Your task to perform on an android device: open a bookmark in the chrome app Image 0: 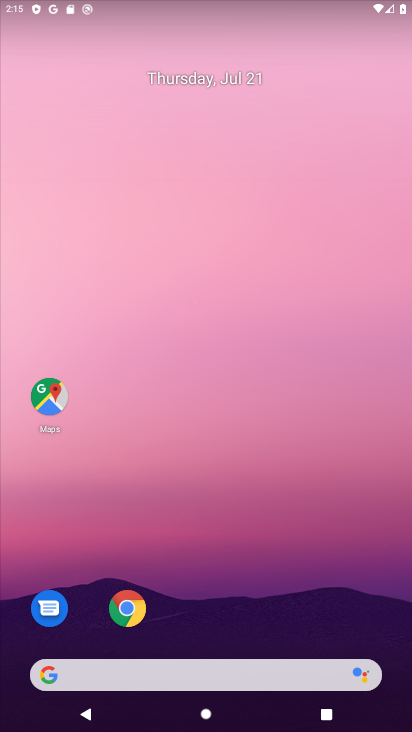
Step 0: drag from (223, 632) to (194, 173)
Your task to perform on an android device: open a bookmark in the chrome app Image 1: 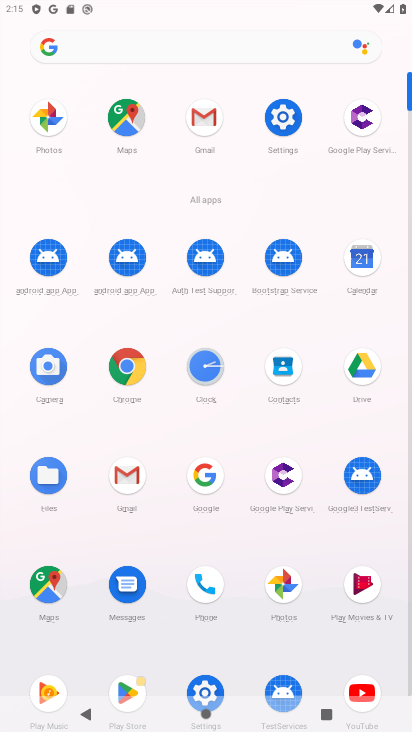
Step 1: click (126, 370)
Your task to perform on an android device: open a bookmark in the chrome app Image 2: 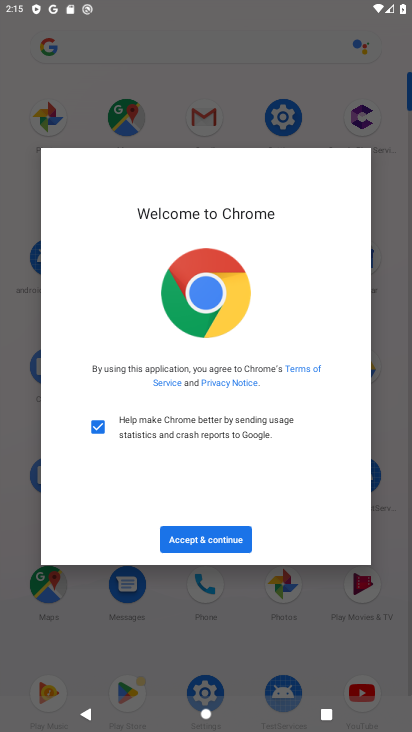
Step 2: click (233, 536)
Your task to perform on an android device: open a bookmark in the chrome app Image 3: 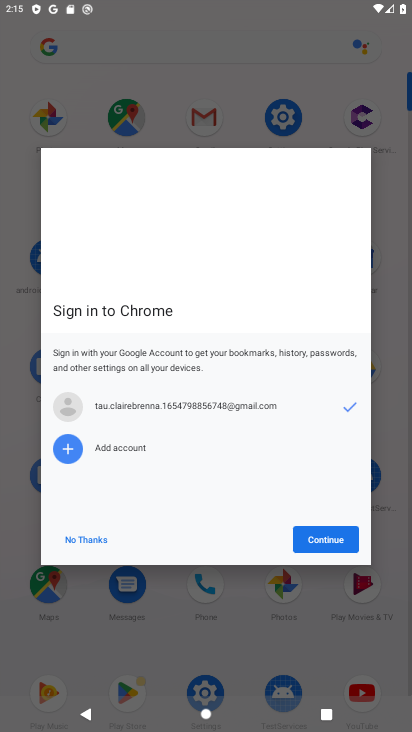
Step 3: click (313, 545)
Your task to perform on an android device: open a bookmark in the chrome app Image 4: 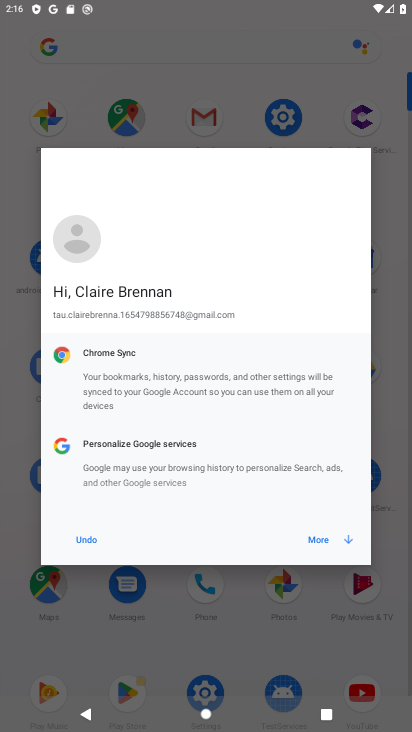
Step 4: click (328, 546)
Your task to perform on an android device: open a bookmark in the chrome app Image 5: 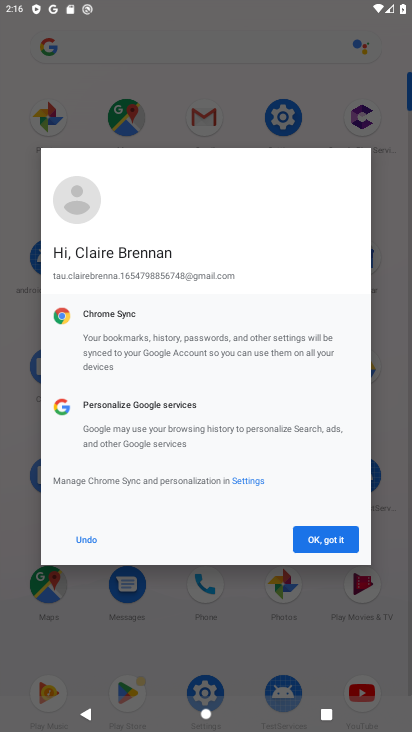
Step 5: click (327, 548)
Your task to perform on an android device: open a bookmark in the chrome app Image 6: 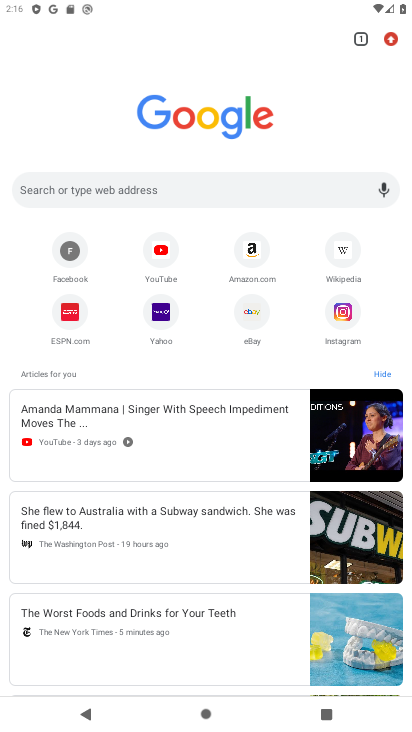
Step 6: task complete